Your task to perform on an android device: delete the emails in spam in the gmail app Image 0: 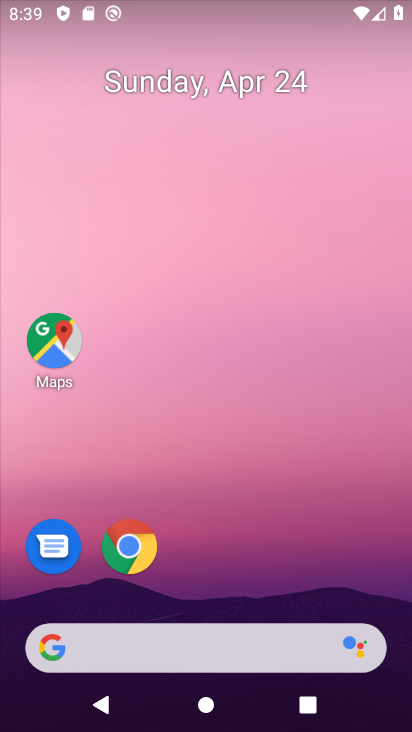
Step 0: drag from (298, 518) to (302, 221)
Your task to perform on an android device: delete the emails in spam in the gmail app Image 1: 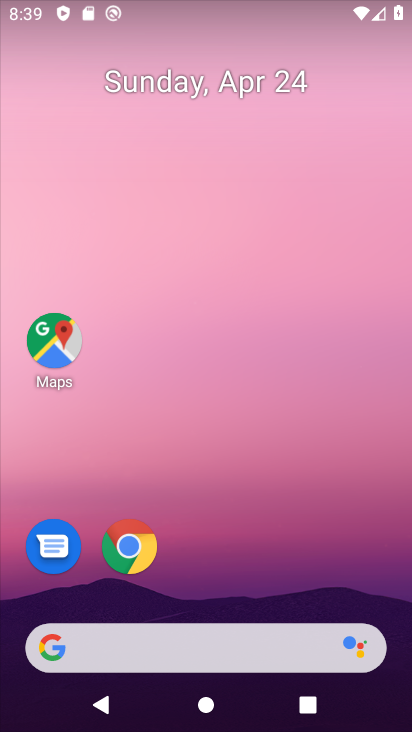
Step 1: drag from (255, 560) to (281, 222)
Your task to perform on an android device: delete the emails in spam in the gmail app Image 2: 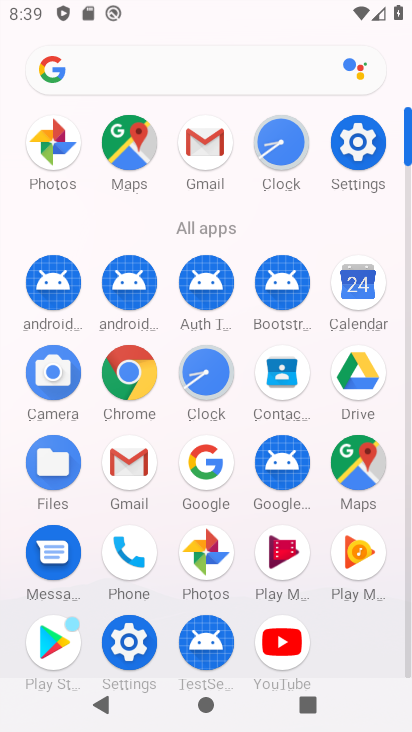
Step 2: click (134, 458)
Your task to perform on an android device: delete the emails in spam in the gmail app Image 3: 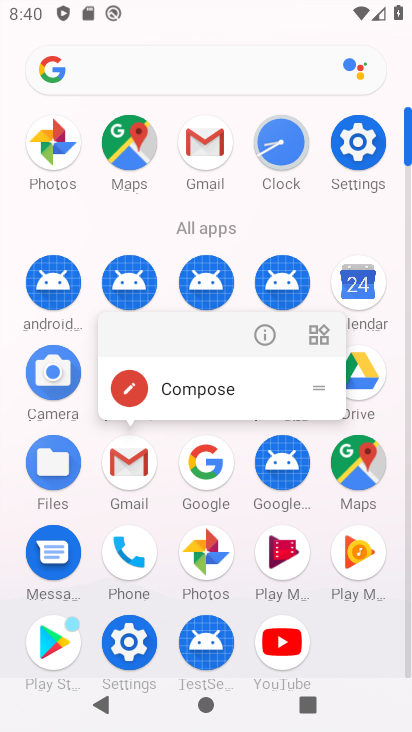
Step 3: click (134, 458)
Your task to perform on an android device: delete the emails in spam in the gmail app Image 4: 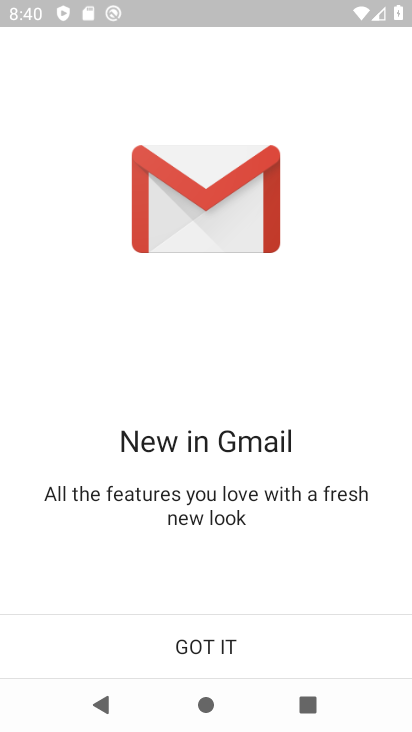
Step 4: click (239, 657)
Your task to perform on an android device: delete the emails in spam in the gmail app Image 5: 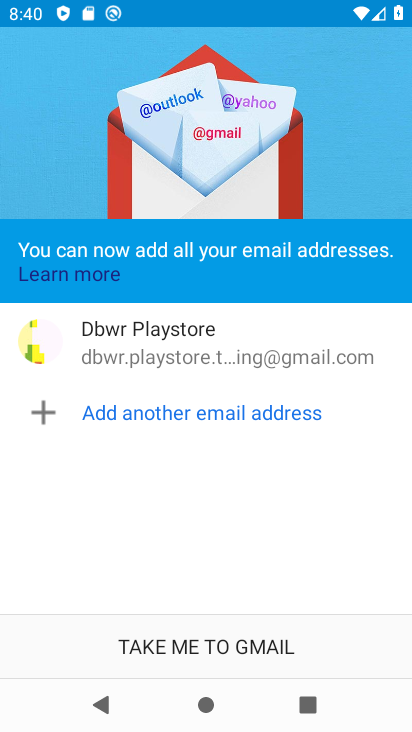
Step 5: click (235, 627)
Your task to perform on an android device: delete the emails in spam in the gmail app Image 6: 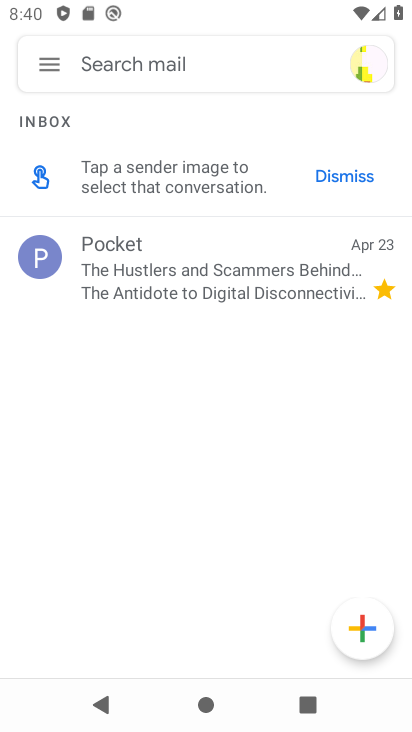
Step 6: click (30, 66)
Your task to perform on an android device: delete the emails in spam in the gmail app Image 7: 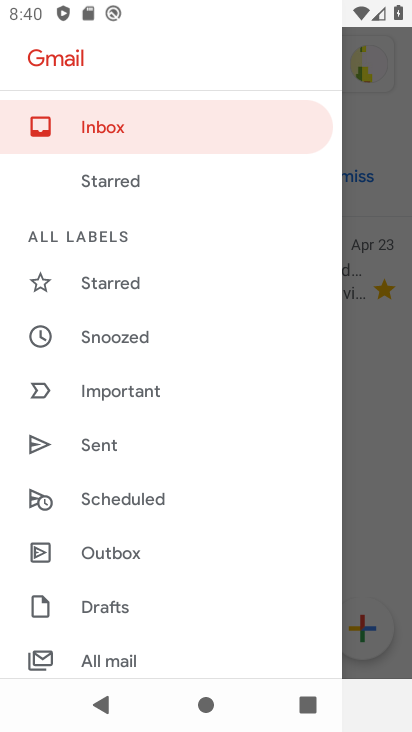
Step 7: drag from (142, 632) to (160, 390)
Your task to perform on an android device: delete the emails in spam in the gmail app Image 8: 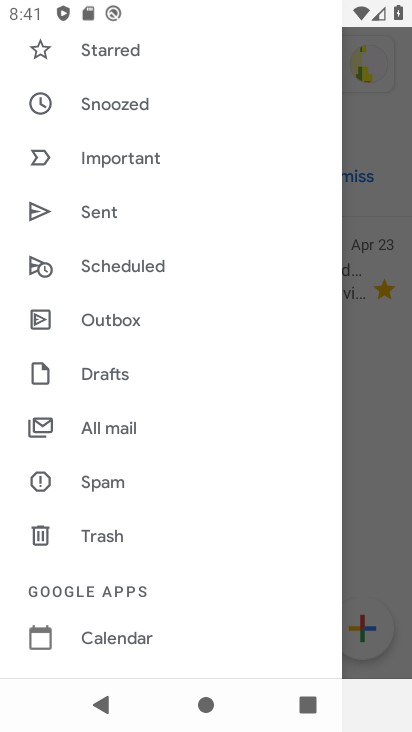
Step 8: click (92, 482)
Your task to perform on an android device: delete the emails in spam in the gmail app Image 9: 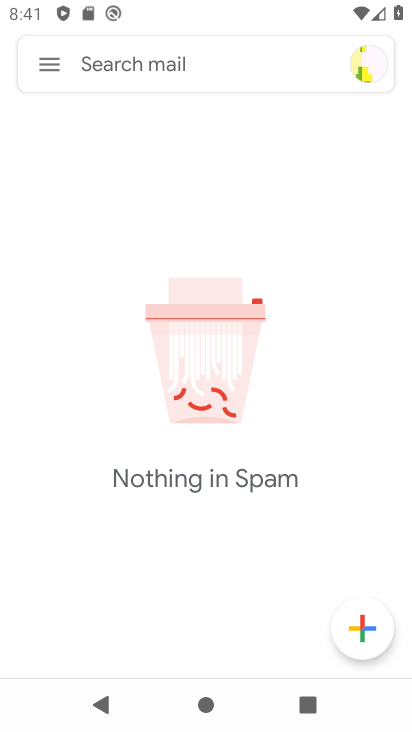
Step 9: task complete